Your task to perform on an android device: Go to Android settings Image 0: 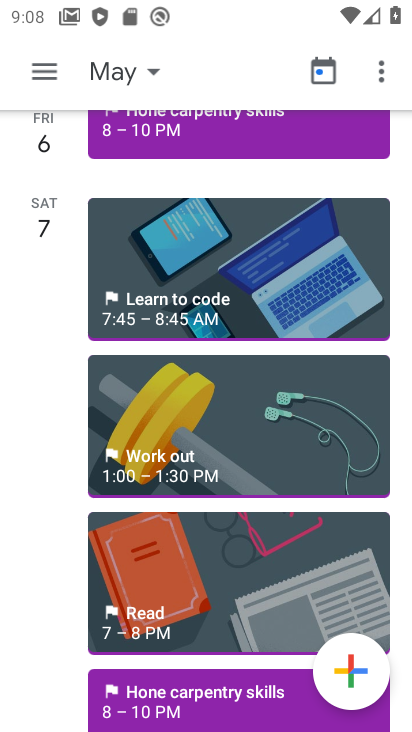
Step 0: press home button
Your task to perform on an android device: Go to Android settings Image 1: 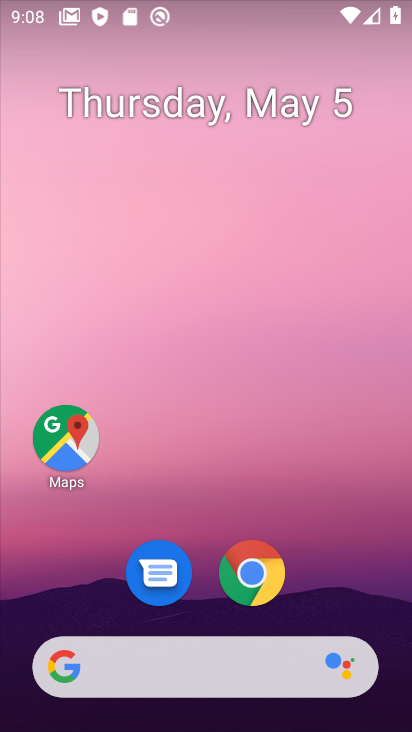
Step 1: drag from (132, 626) to (324, 89)
Your task to perform on an android device: Go to Android settings Image 2: 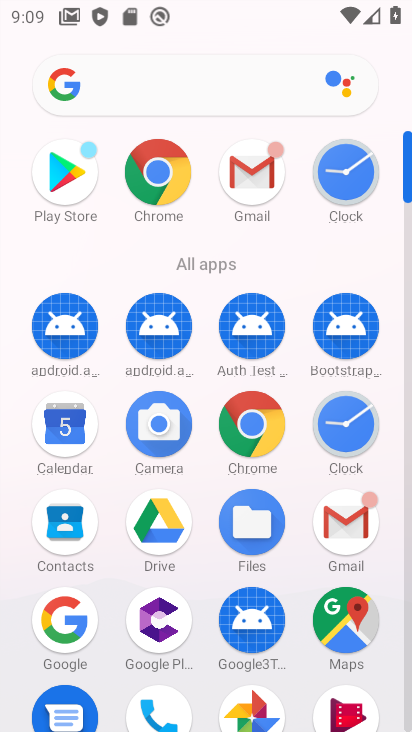
Step 2: drag from (167, 687) to (360, 82)
Your task to perform on an android device: Go to Android settings Image 3: 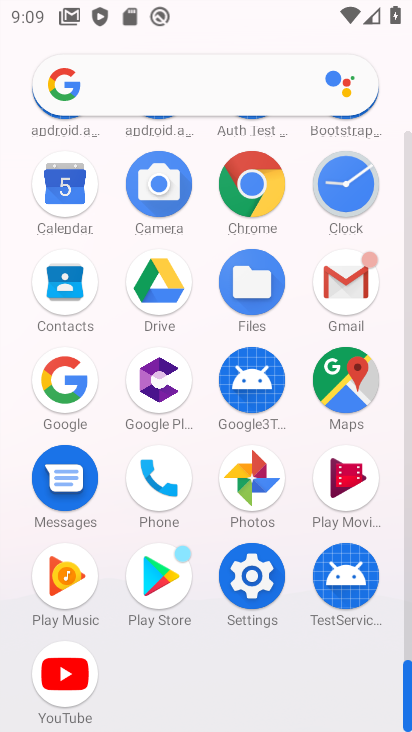
Step 3: click (245, 578)
Your task to perform on an android device: Go to Android settings Image 4: 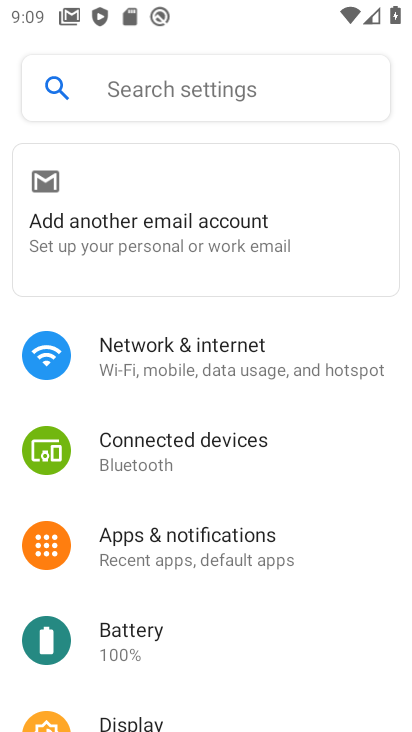
Step 4: drag from (194, 659) to (285, 128)
Your task to perform on an android device: Go to Android settings Image 5: 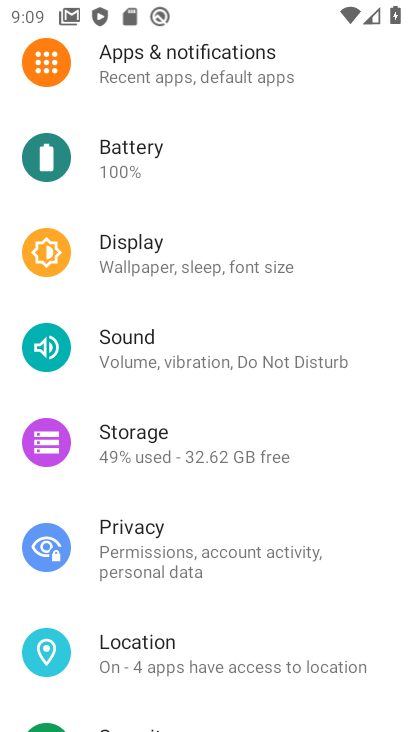
Step 5: drag from (158, 571) to (213, 171)
Your task to perform on an android device: Go to Android settings Image 6: 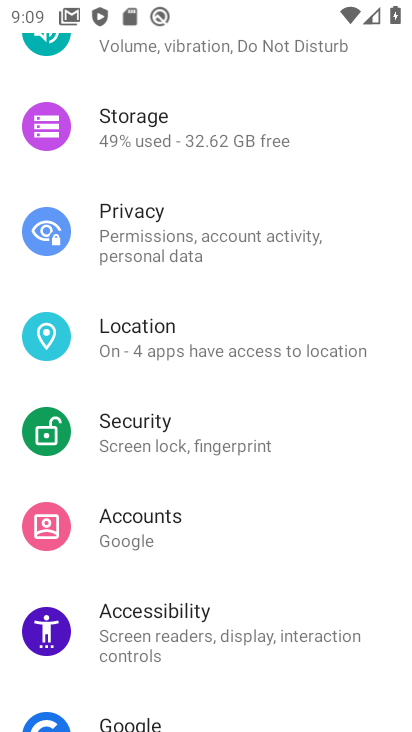
Step 6: drag from (177, 651) to (284, 50)
Your task to perform on an android device: Go to Android settings Image 7: 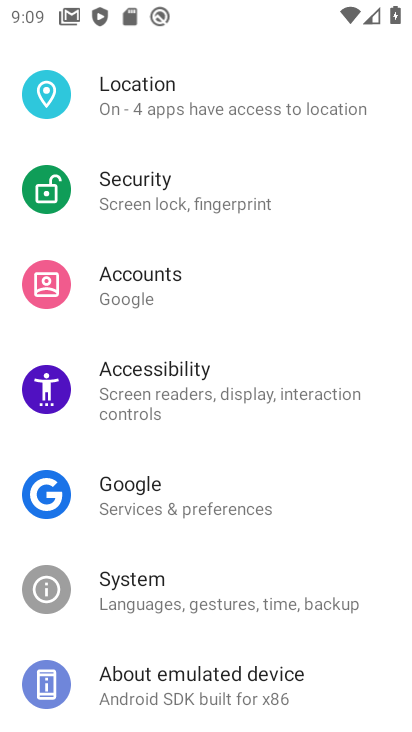
Step 7: click (166, 694)
Your task to perform on an android device: Go to Android settings Image 8: 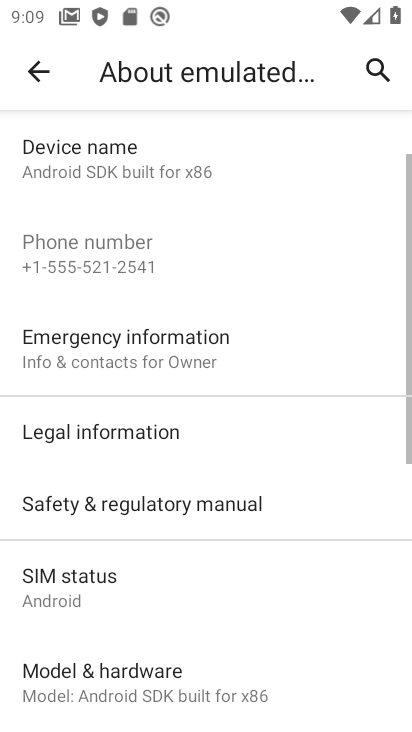
Step 8: drag from (105, 604) to (238, 155)
Your task to perform on an android device: Go to Android settings Image 9: 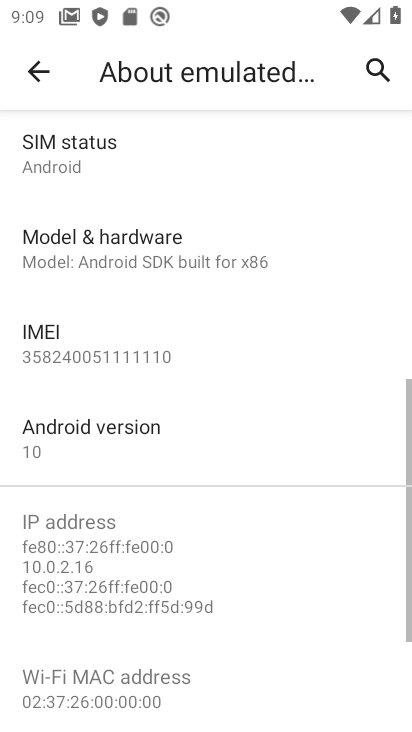
Step 9: click (67, 444)
Your task to perform on an android device: Go to Android settings Image 10: 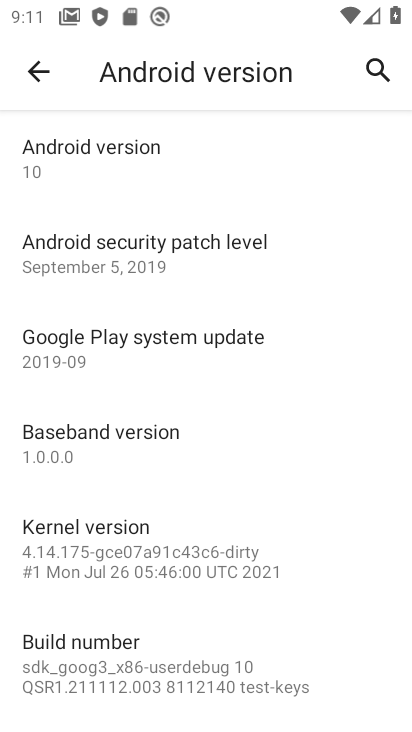
Step 10: task complete